Your task to perform on an android device: turn on data saver in the chrome app Image 0: 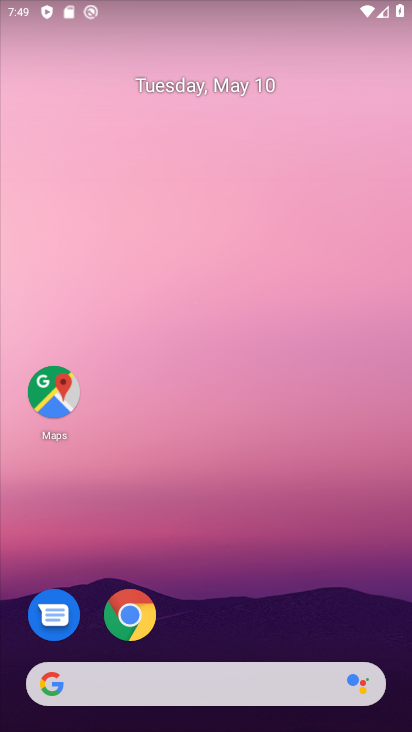
Step 0: drag from (161, 652) to (197, 323)
Your task to perform on an android device: turn on data saver in the chrome app Image 1: 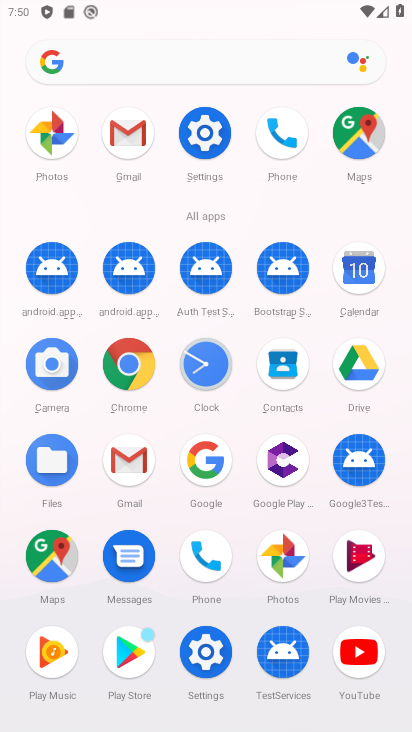
Step 1: click (125, 358)
Your task to perform on an android device: turn on data saver in the chrome app Image 2: 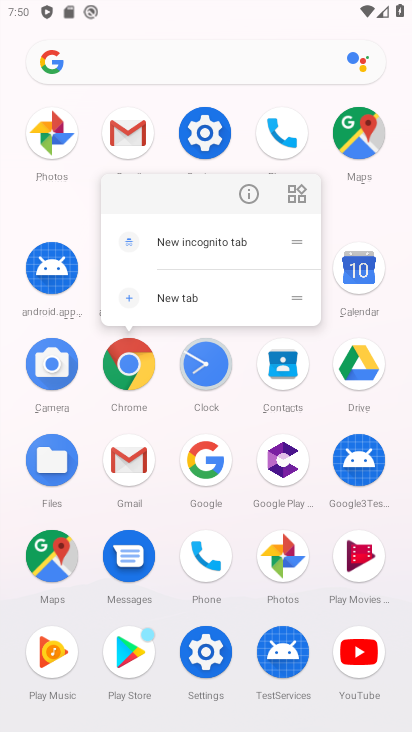
Step 2: click (253, 201)
Your task to perform on an android device: turn on data saver in the chrome app Image 3: 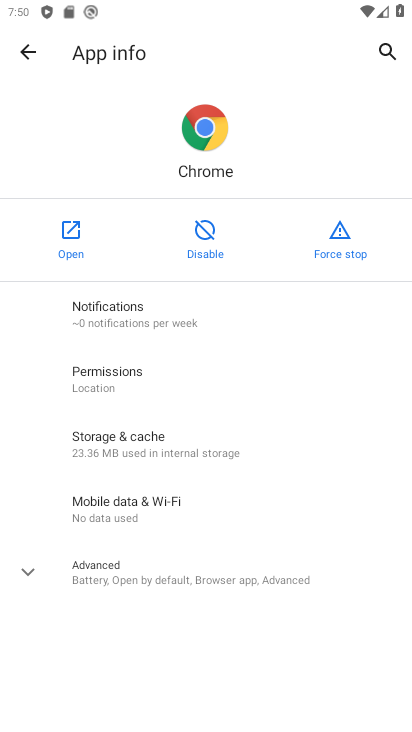
Step 3: click (73, 255)
Your task to perform on an android device: turn on data saver in the chrome app Image 4: 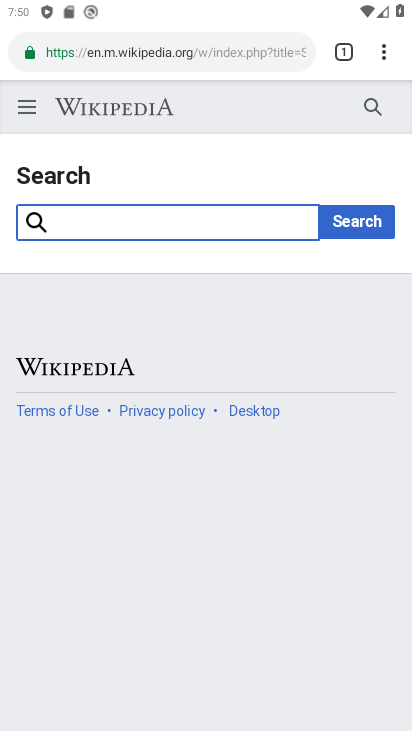
Step 4: drag from (392, 61) to (230, 620)
Your task to perform on an android device: turn on data saver in the chrome app Image 5: 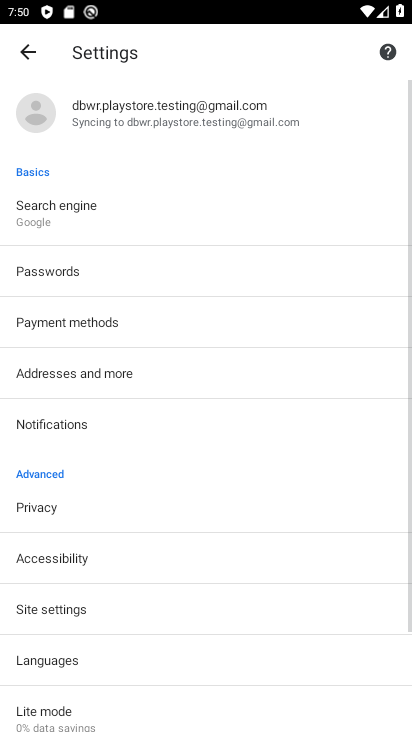
Step 5: drag from (184, 586) to (261, 176)
Your task to perform on an android device: turn on data saver in the chrome app Image 6: 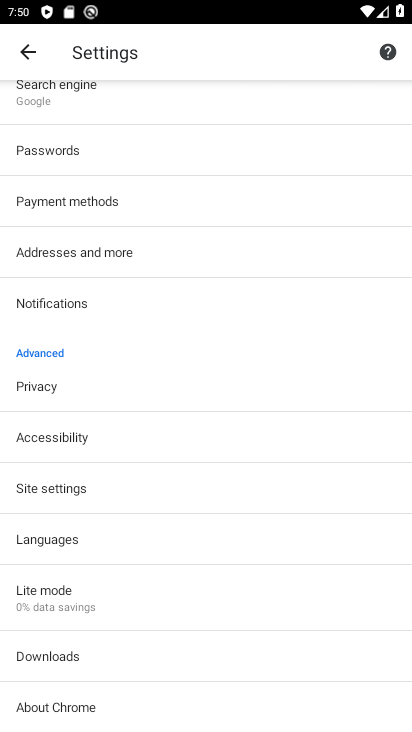
Step 6: click (100, 582)
Your task to perform on an android device: turn on data saver in the chrome app Image 7: 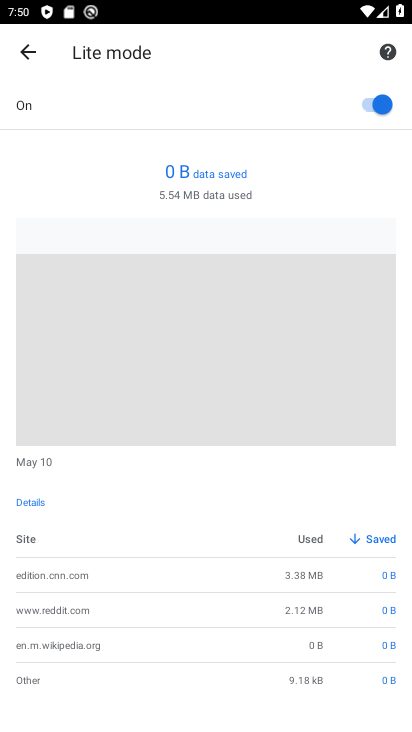
Step 7: task complete